Your task to perform on an android device: Open Maps and search for coffee Image 0: 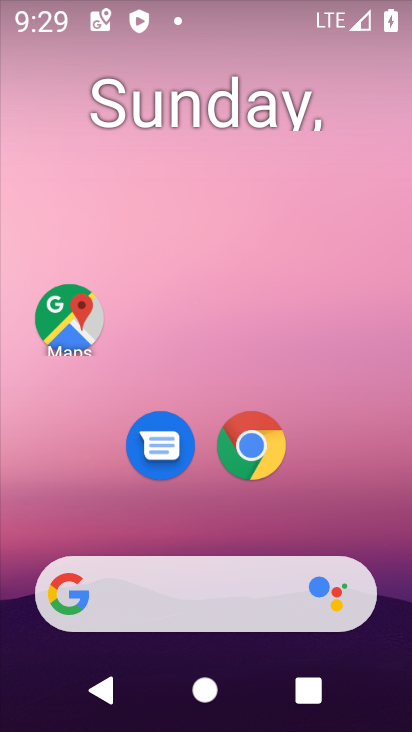
Step 0: click (69, 321)
Your task to perform on an android device: Open Maps and search for coffee Image 1: 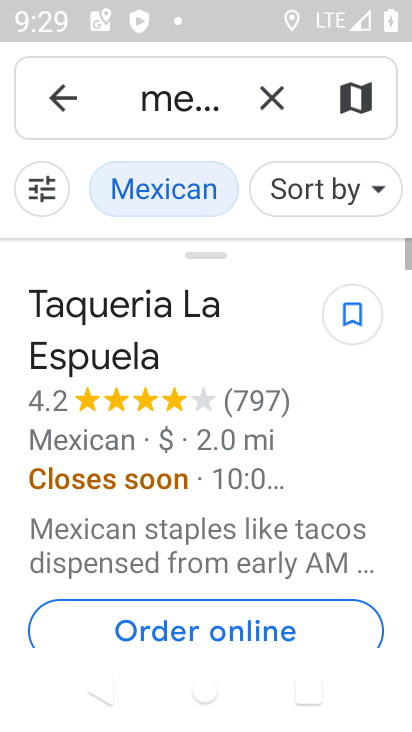
Step 1: click (272, 96)
Your task to perform on an android device: Open Maps and search for coffee Image 2: 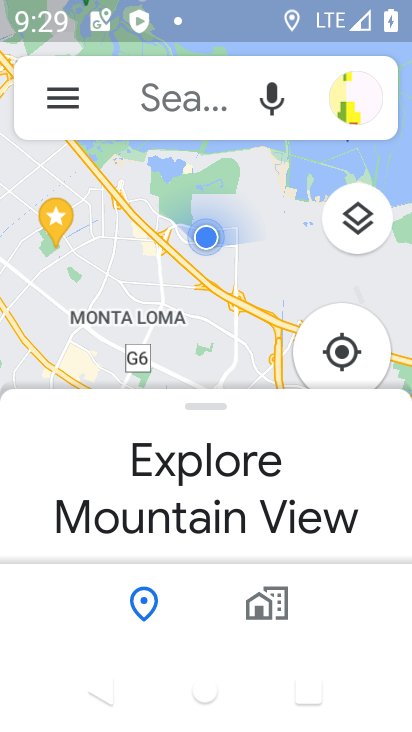
Step 2: click (162, 97)
Your task to perform on an android device: Open Maps and search for coffee Image 3: 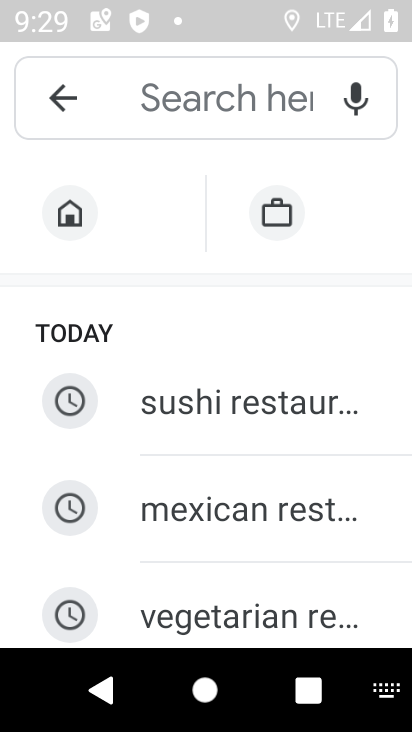
Step 3: type "coffee"
Your task to perform on an android device: Open Maps and search for coffee Image 4: 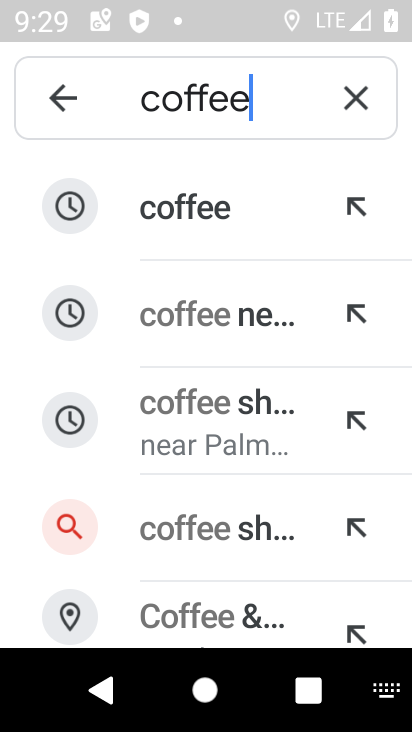
Step 4: click (146, 217)
Your task to perform on an android device: Open Maps and search for coffee Image 5: 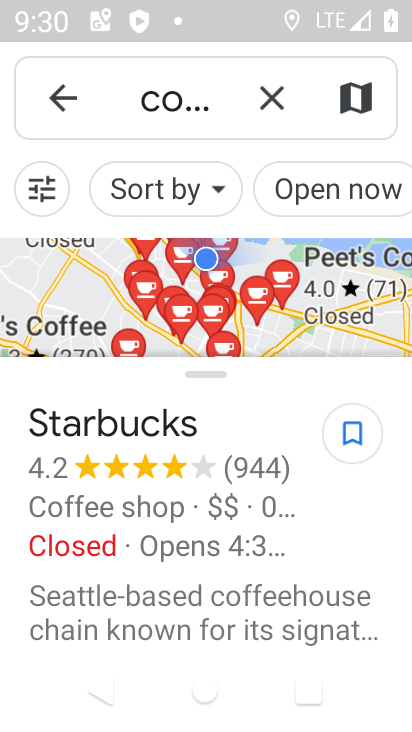
Step 5: task complete